Your task to perform on an android device: Open internet settings Image 0: 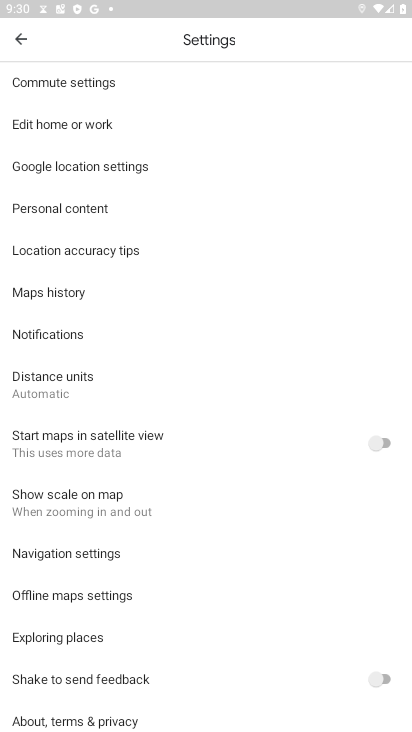
Step 0: press back button
Your task to perform on an android device: Open internet settings Image 1: 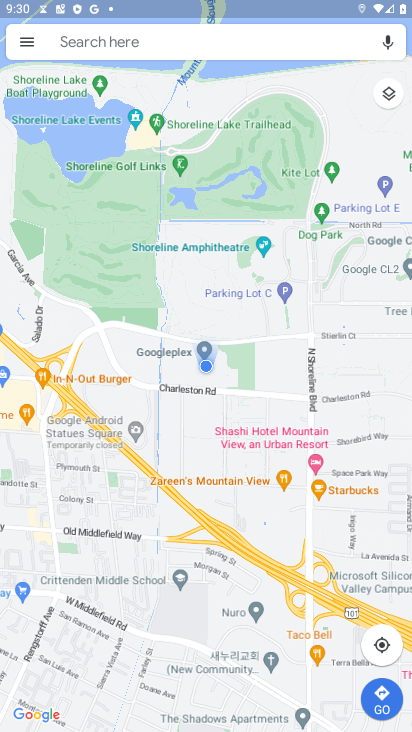
Step 1: press back button
Your task to perform on an android device: Open internet settings Image 2: 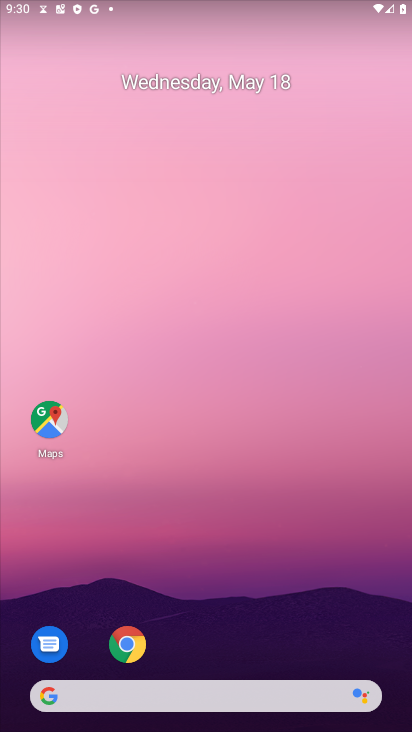
Step 2: drag from (265, 615) to (239, 24)
Your task to perform on an android device: Open internet settings Image 3: 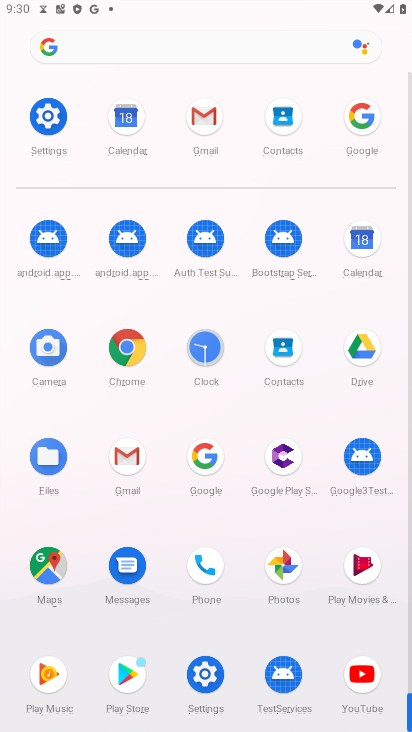
Step 3: click (48, 116)
Your task to perform on an android device: Open internet settings Image 4: 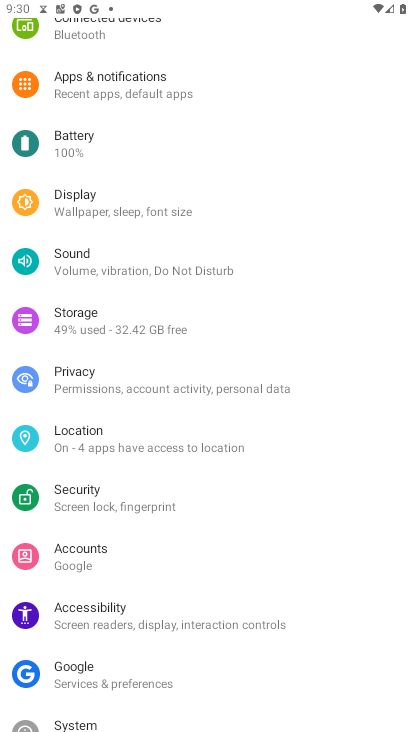
Step 4: drag from (120, 141) to (117, 216)
Your task to perform on an android device: Open internet settings Image 5: 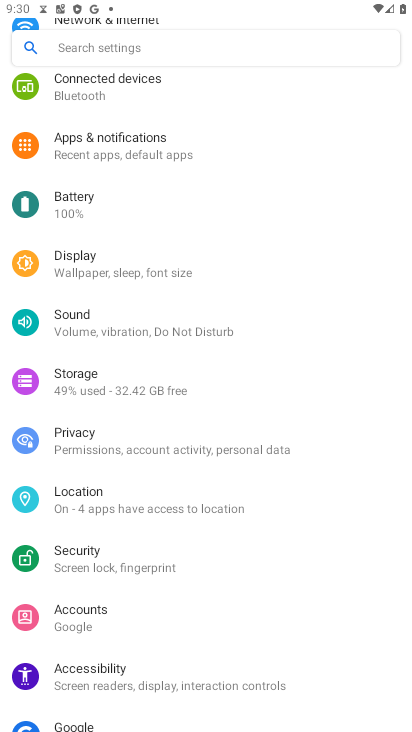
Step 5: drag from (115, 112) to (134, 278)
Your task to perform on an android device: Open internet settings Image 6: 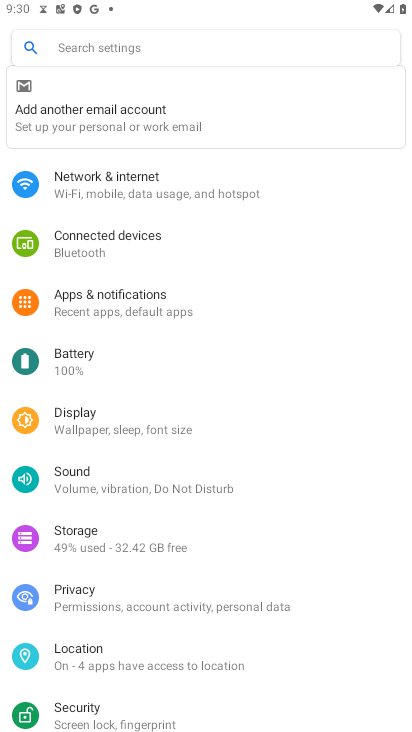
Step 6: click (101, 170)
Your task to perform on an android device: Open internet settings Image 7: 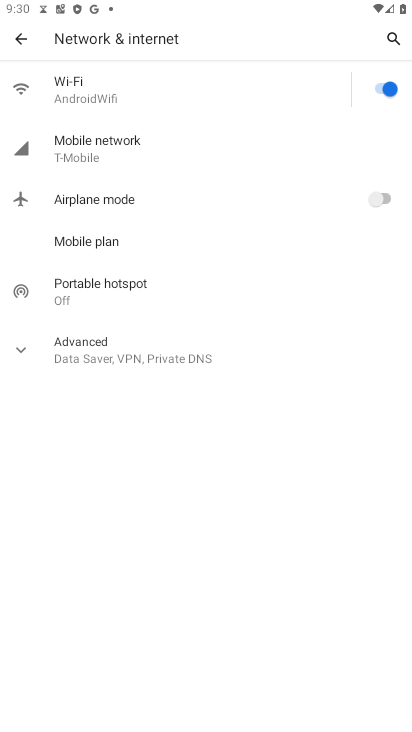
Step 7: click (95, 100)
Your task to perform on an android device: Open internet settings Image 8: 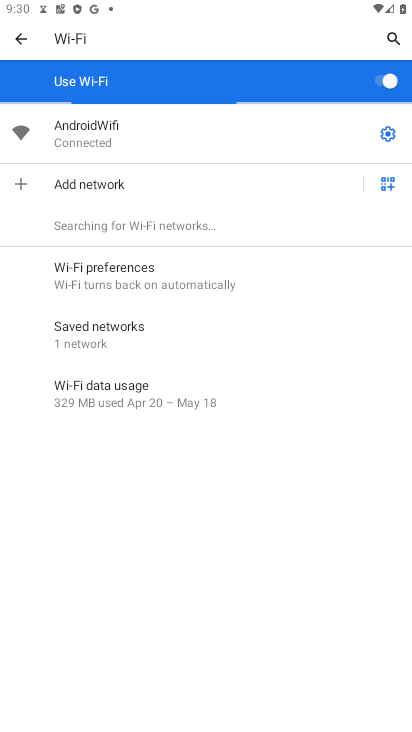
Step 8: task complete